Your task to perform on an android device: open device folders in google photos Image 0: 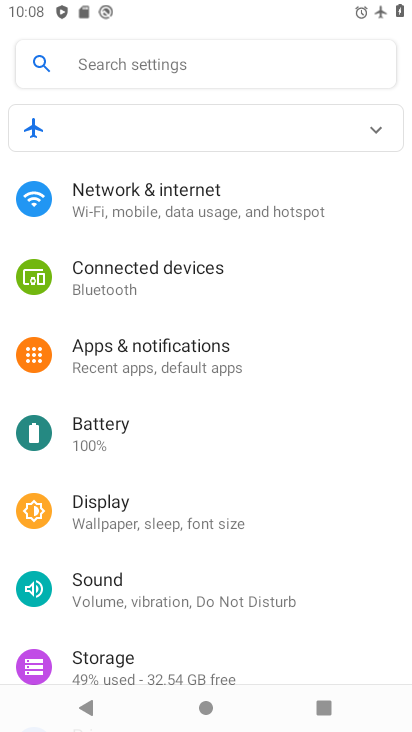
Step 0: press home button
Your task to perform on an android device: open device folders in google photos Image 1: 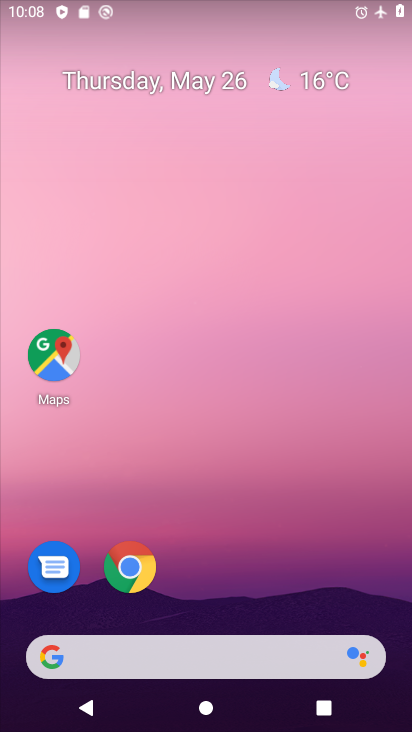
Step 1: drag from (383, 722) to (313, 21)
Your task to perform on an android device: open device folders in google photos Image 2: 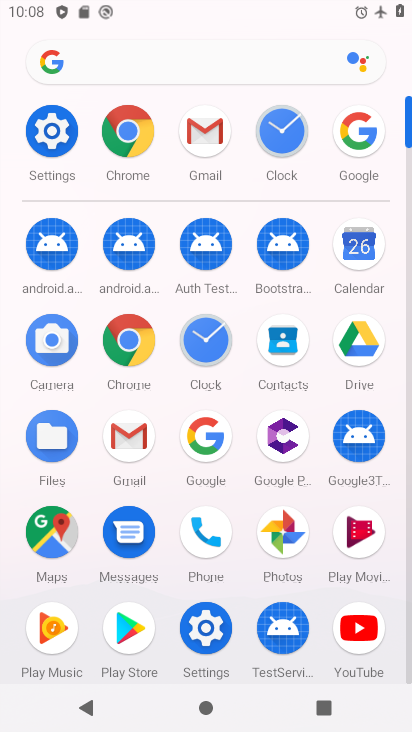
Step 2: click (285, 524)
Your task to perform on an android device: open device folders in google photos Image 3: 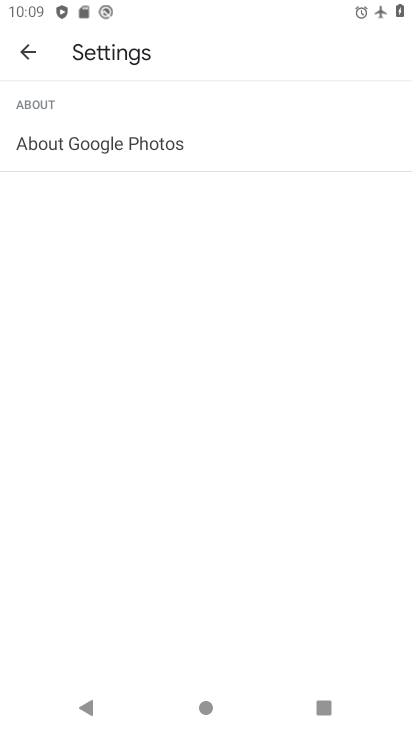
Step 3: click (27, 54)
Your task to perform on an android device: open device folders in google photos Image 4: 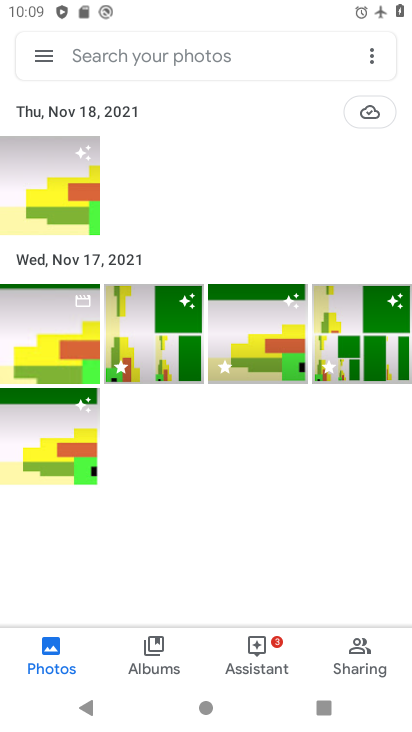
Step 4: click (40, 50)
Your task to perform on an android device: open device folders in google photos Image 5: 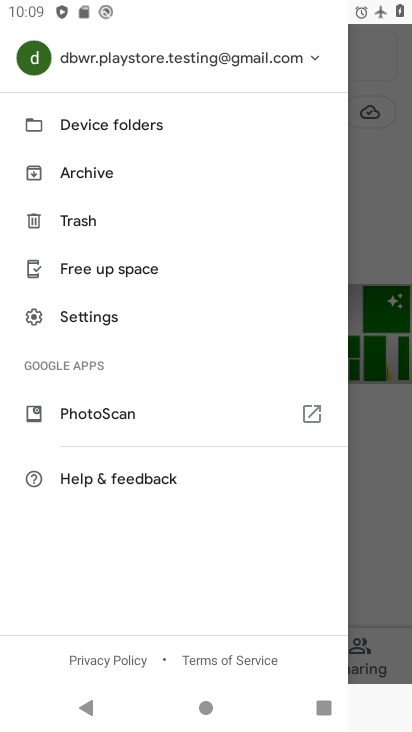
Step 5: click (80, 119)
Your task to perform on an android device: open device folders in google photos Image 6: 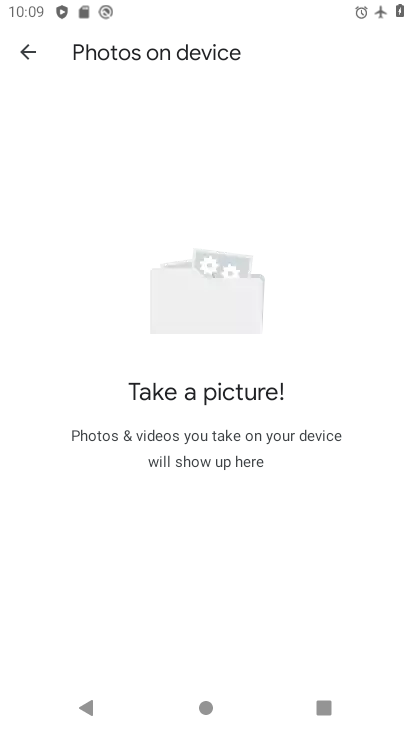
Step 6: task complete